Your task to perform on an android device: Add "lenovo thinkpad" to the cart on ebay.com Image 0: 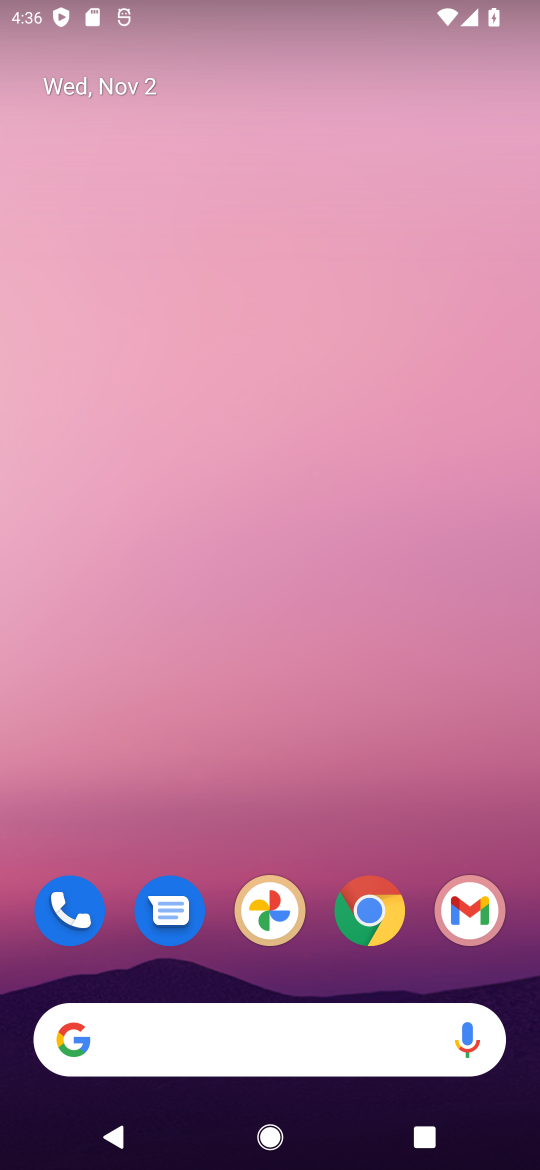
Step 0: click (368, 914)
Your task to perform on an android device: Add "lenovo thinkpad" to the cart on ebay.com Image 1: 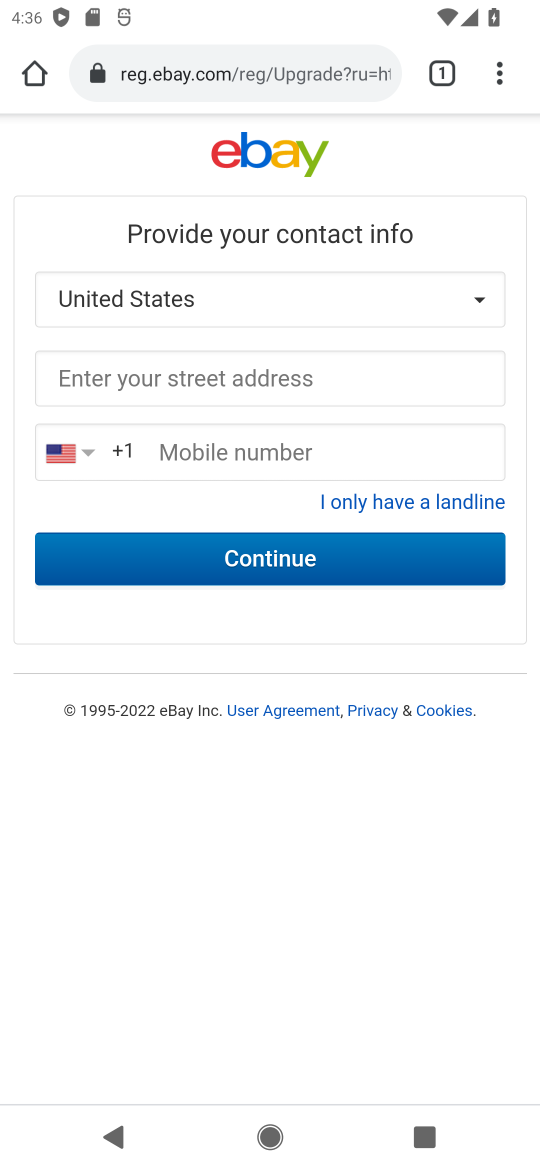
Step 1: click (349, 61)
Your task to perform on an android device: Add "lenovo thinkpad" to the cart on ebay.com Image 2: 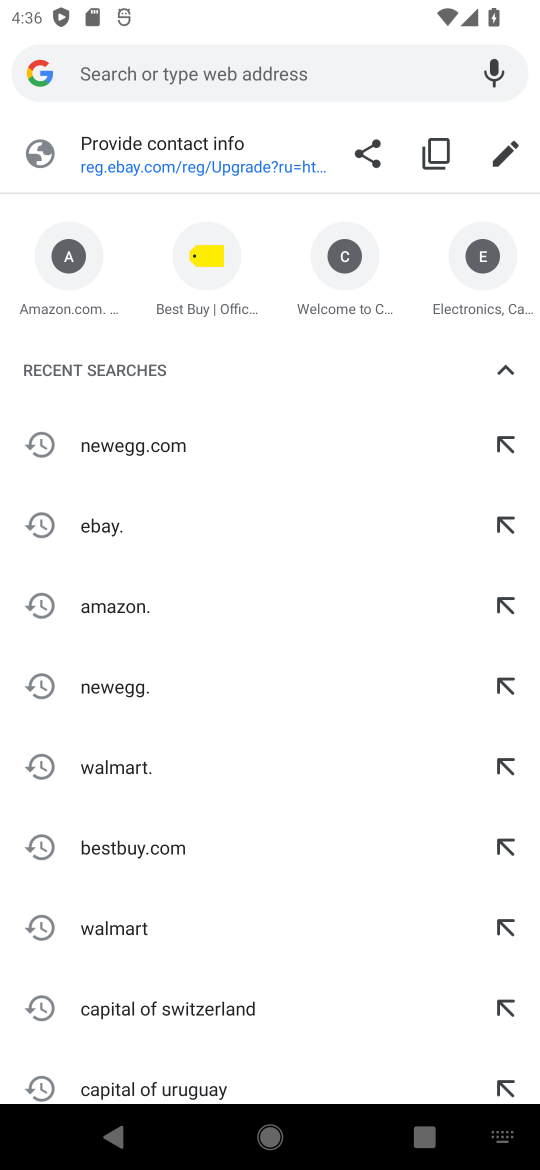
Step 2: type "ebay.com"
Your task to perform on an android device: Add "lenovo thinkpad" to the cart on ebay.com Image 3: 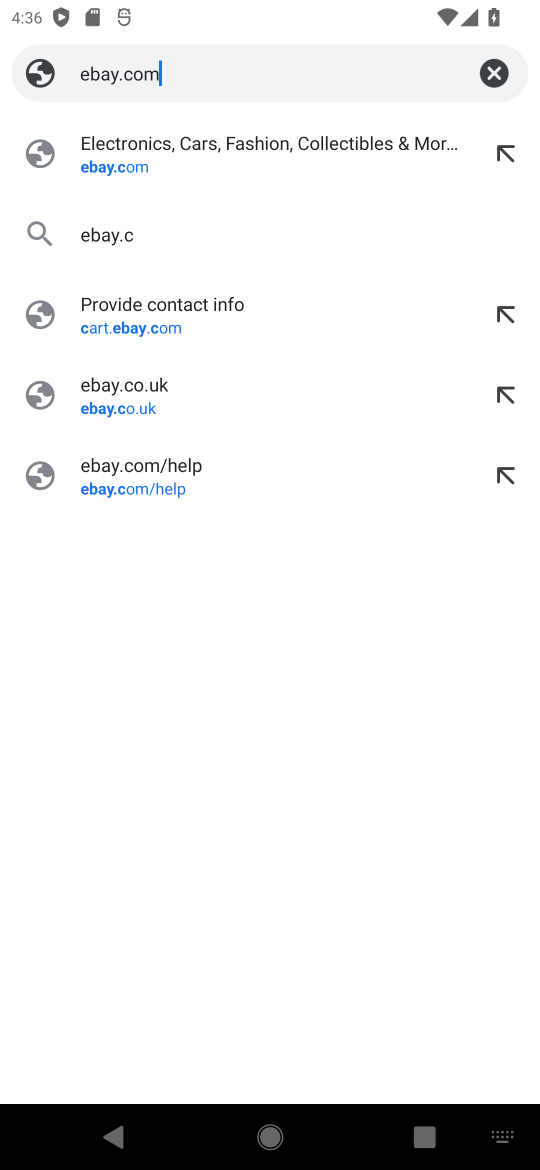
Step 3: type ""
Your task to perform on an android device: Add "lenovo thinkpad" to the cart on ebay.com Image 4: 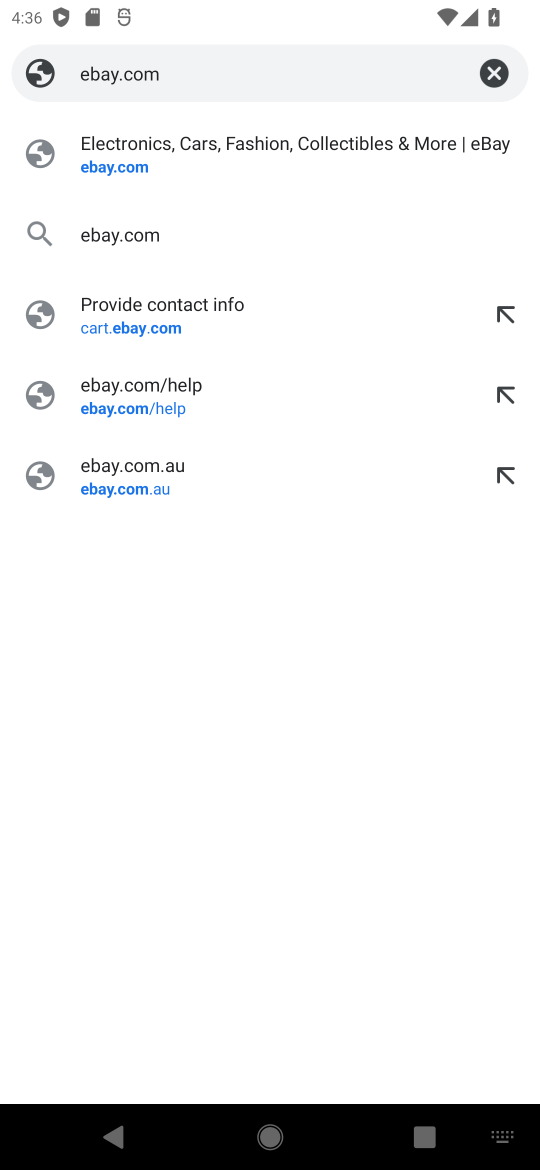
Step 4: click (227, 124)
Your task to perform on an android device: Add "lenovo thinkpad" to the cart on ebay.com Image 5: 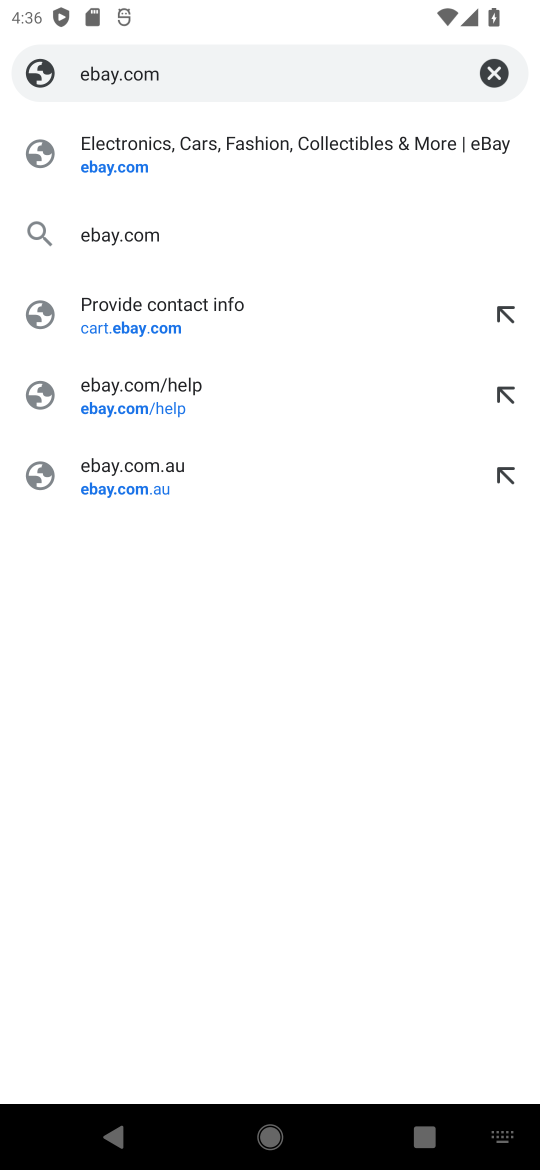
Step 5: click (222, 137)
Your task to perform on an android device: Add "lenovo thinkpad" to the cart on ebay.com Image 6: 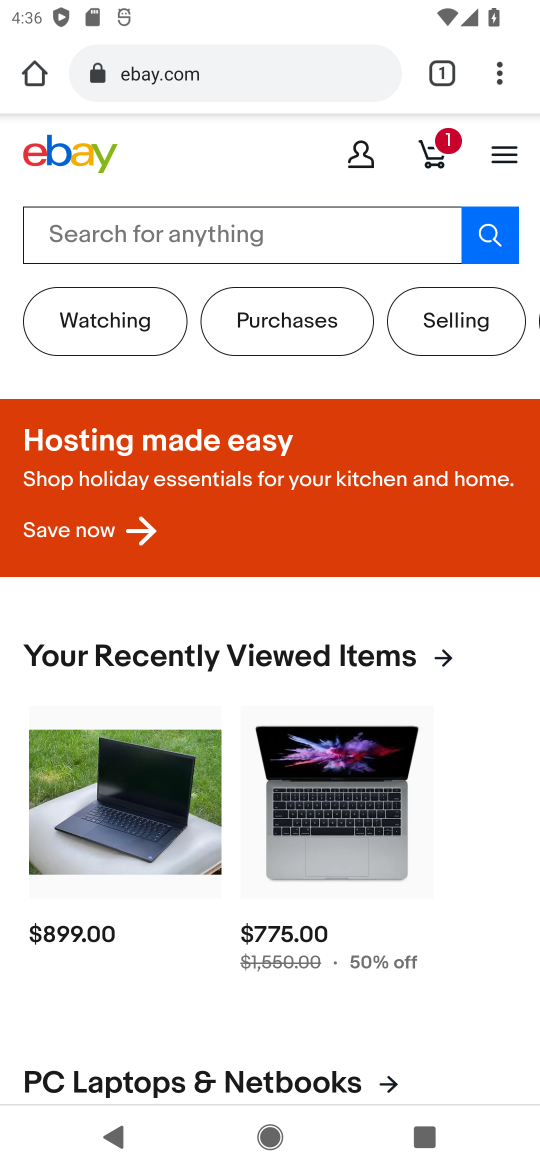
Step 6: click (190, 217)
Your task to perform on an android device: Add "lenovo thinkpad" to the cart on ebay.com Image 7: 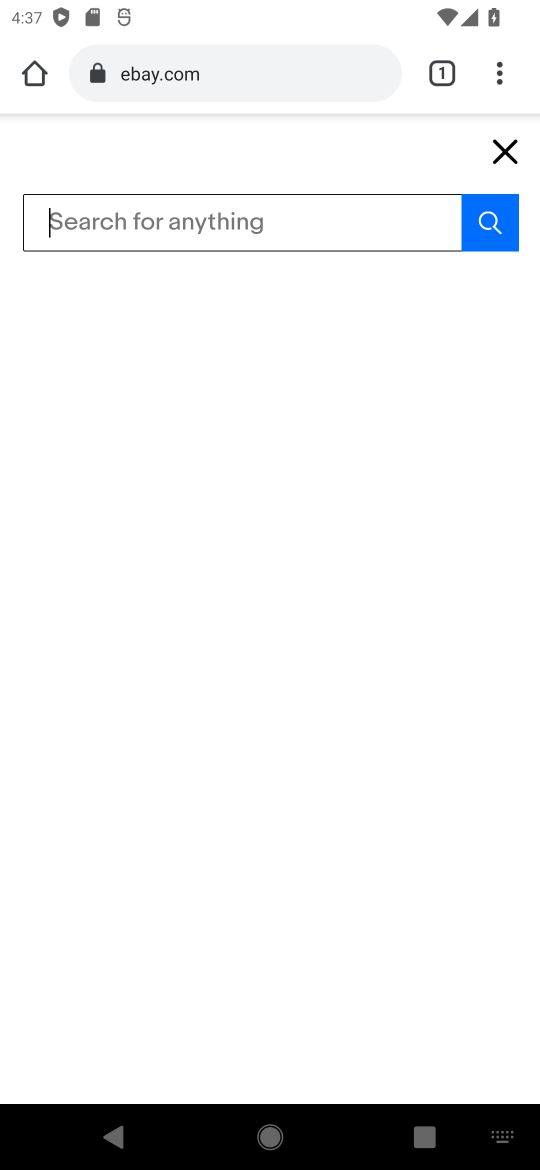
Step 7: type "lenovo thinkpad"
Your task to perform on an android device: Add "lenovo thinkpad" to the cart on ebay.com Image 8: 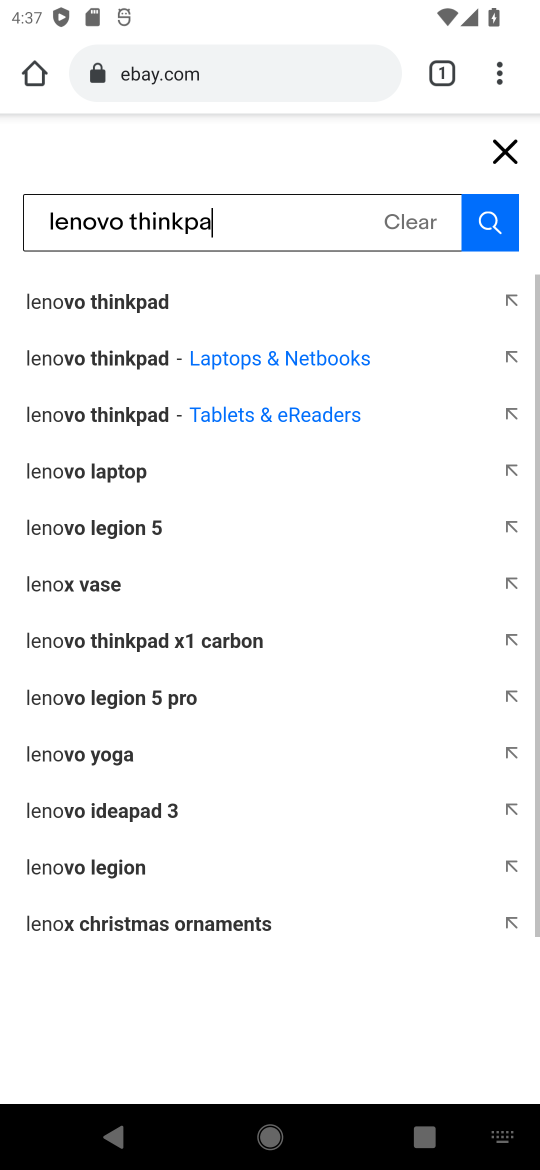
Step 8: type ""
Your task to perform on an android device: Add "lenovo thinkpad" to the cart on ebay.com Image 9: 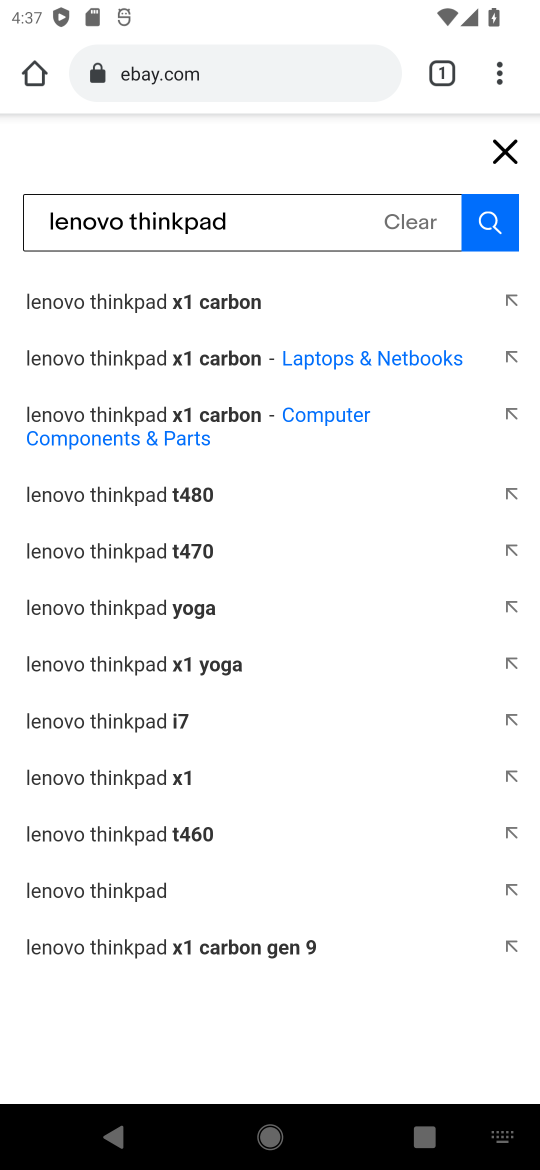
Step 9: click (473, 212)
Your task to perform on an android device: Add "lenovo thinkpad" to the cart on ebay.com Image 10: 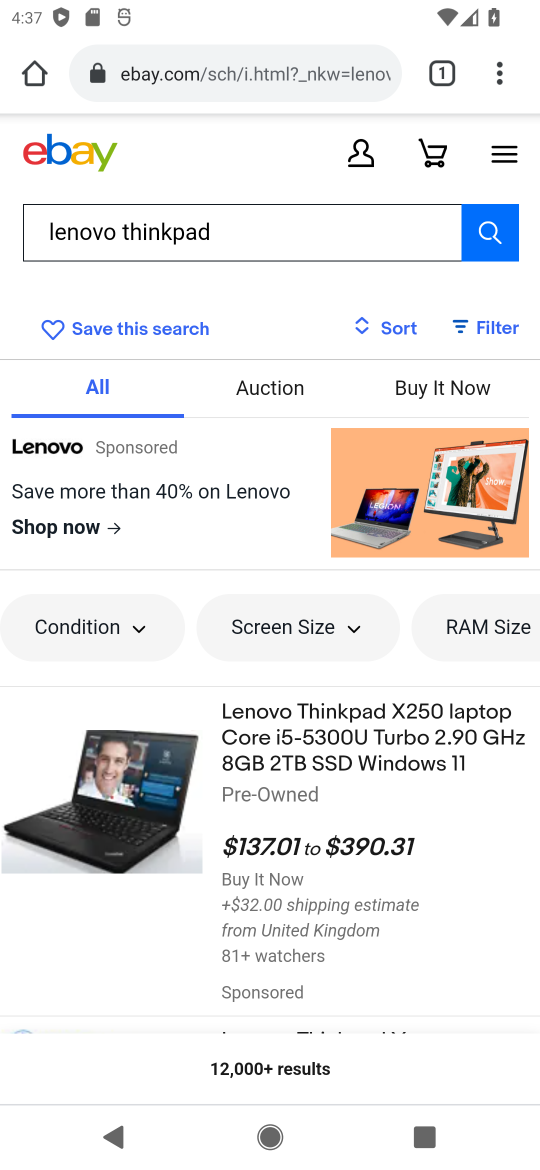
Step 10: click (348, 738)
Your task to perform on an android device: Add "lenovo thinkpad" to the cart on ebay.com Image 11: 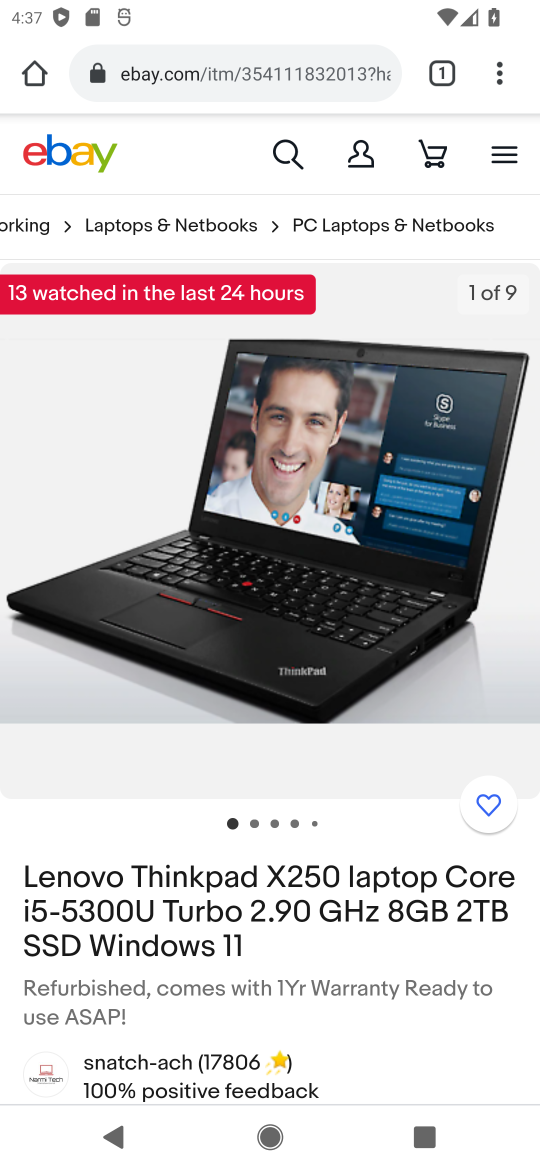
Step 11: drag from (381, 760) to (369, 357)
Your task to perform on an android device: Add "lenovo thinkpad" to the cart on ebay.com Image 12: 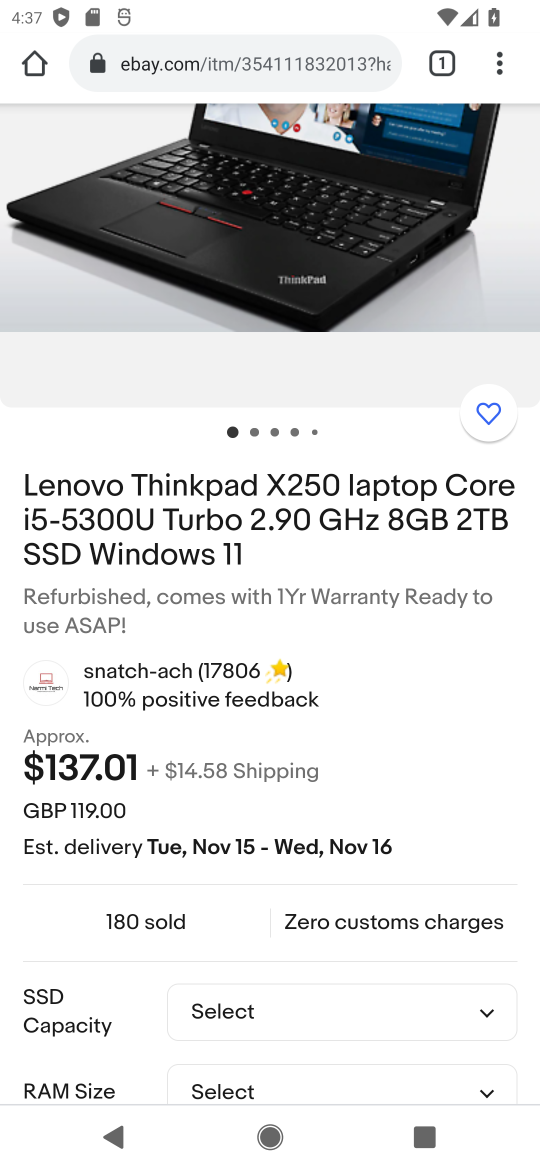
Step 12: drag from (331, 804) to (319, 404)
Your task to perform on an android device: Add "lenovo thinkpad" to the cart on ebay.com Image 13: 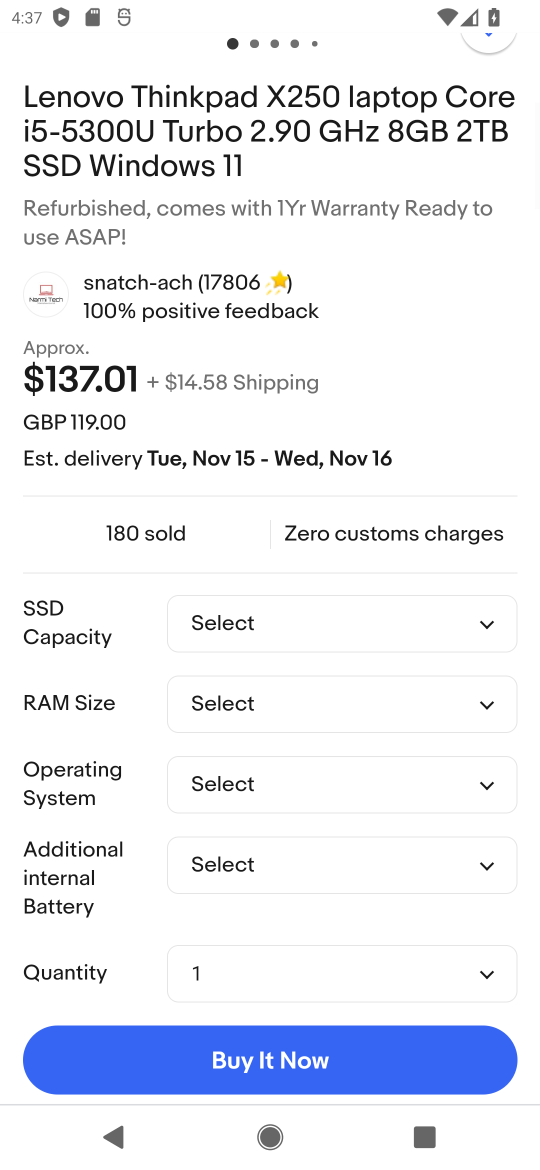
Step 13: click (266, 604)
Your task to perform on an android device: Add "lenovo thinkpad" to the cart on ebay.com Image 14: 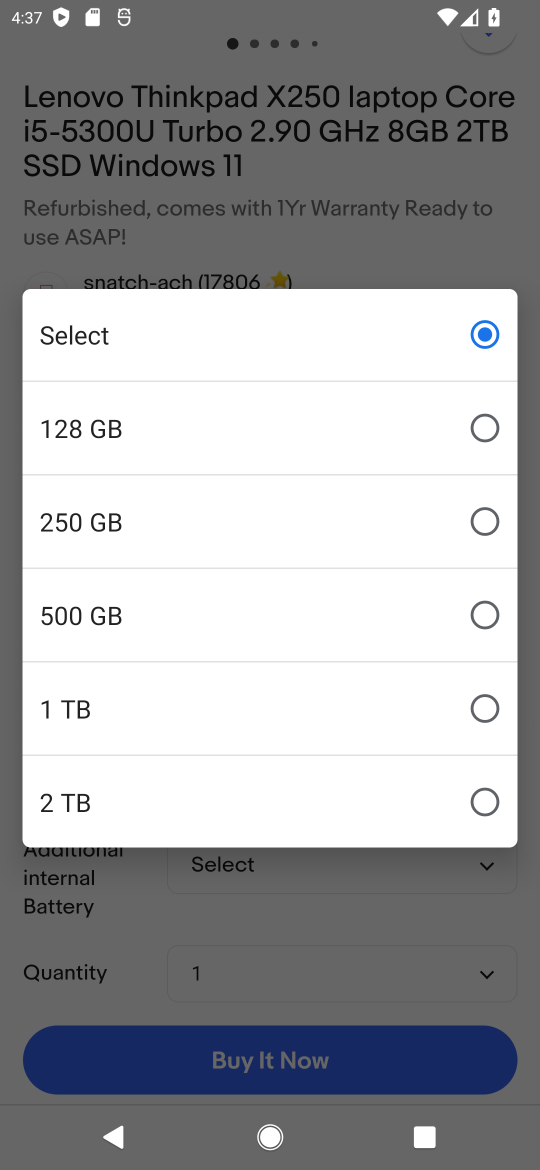
Step 14: click (215, 607)
Your task to perform on an android device: Add "lenovo thinkpad" to the cart on ebay.com Image 15: 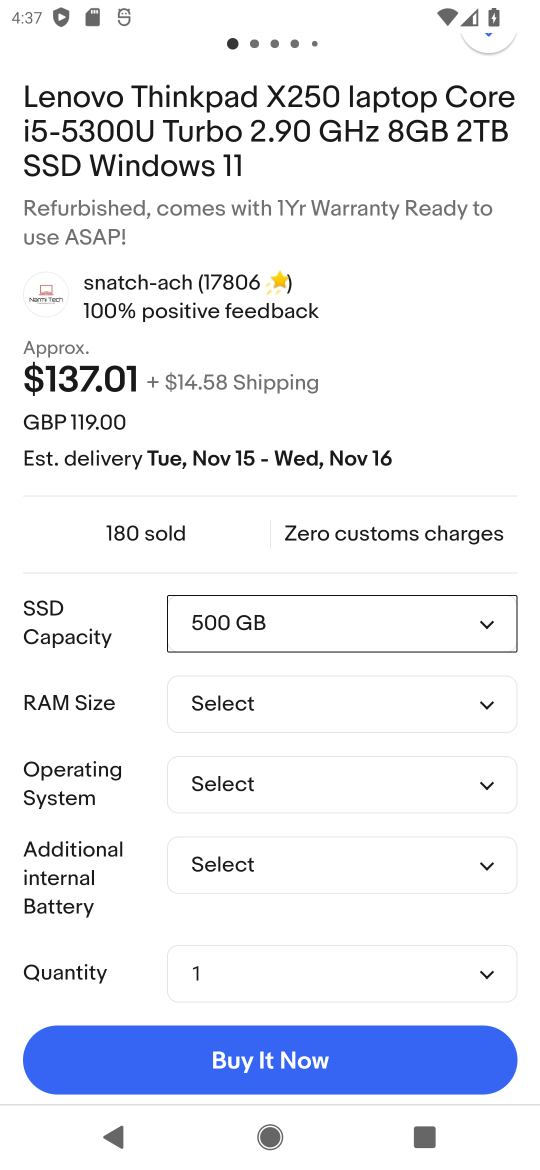
Step 15: click (264, 695)
Your task to perform on an android device: Add "lenovo thinkpad" to the cart on ebay.com Image 16: 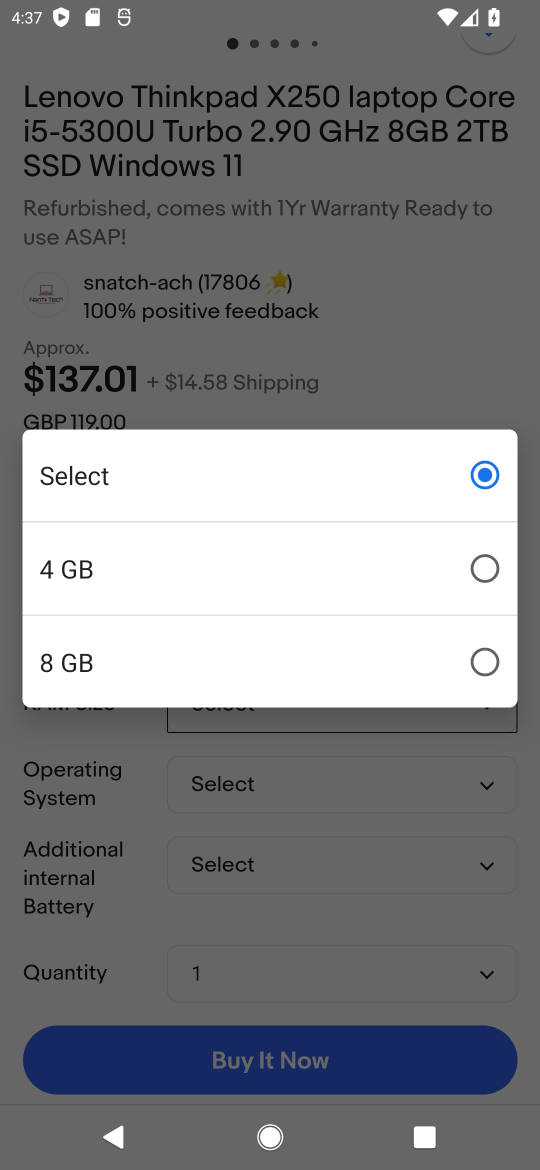
Step 16: click (271, 666)
Your task to perform on an android device: Add "lenovo thinkpad" to the cart on ebay.com Image 17: 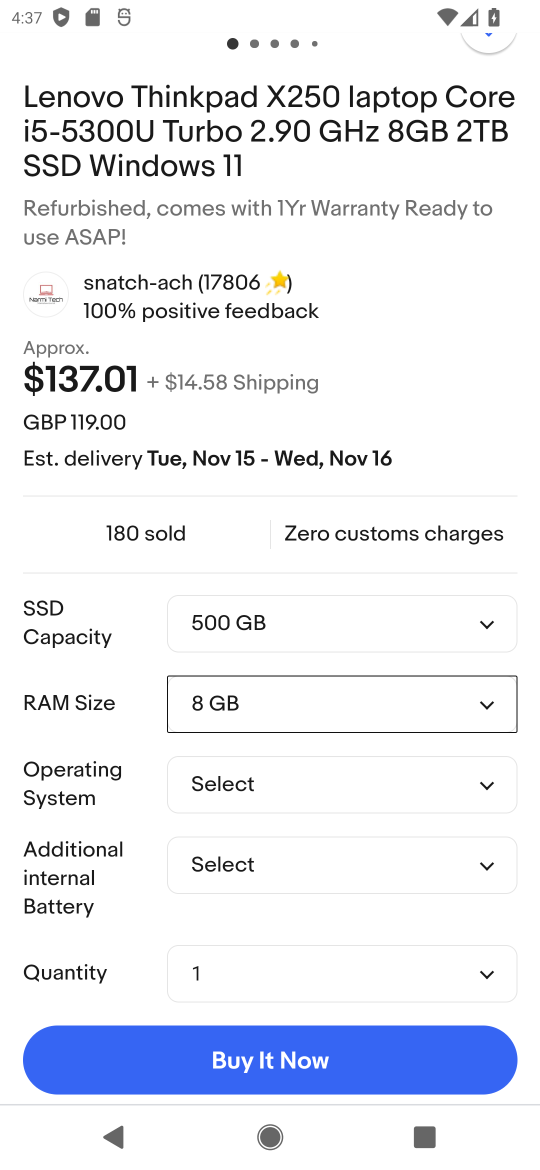
Step 17: click (274, 791)
Your task to perform on an android device: Add "lenovo thinkpad" to the cart on ebay.com Image 18: 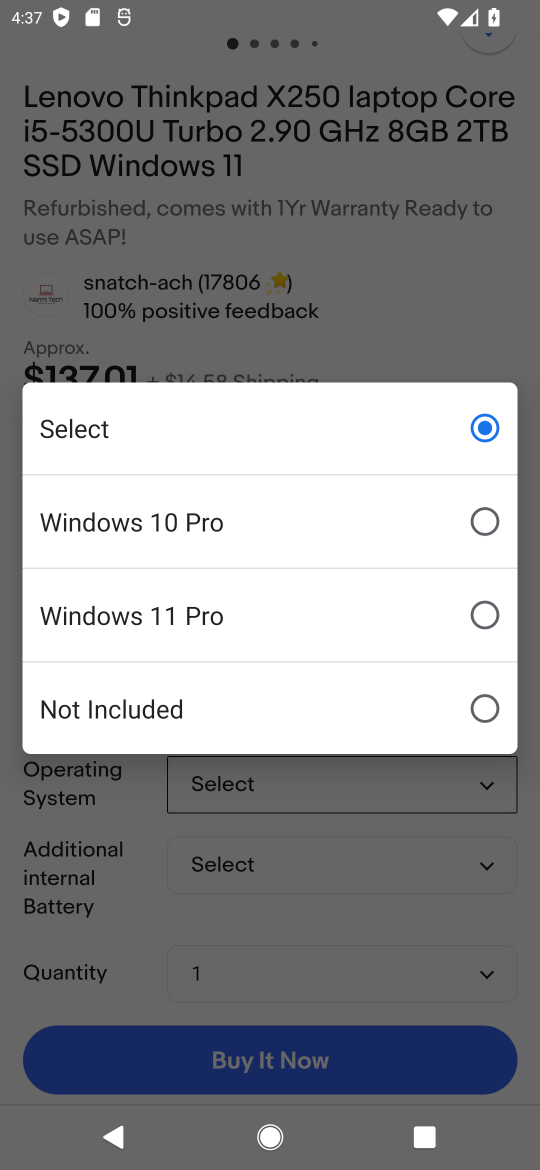
Step 18: click (289, 603)
Your task to perform on an android device: Add "lenovo thinkpad" to the cart on ebay.com Image 19: 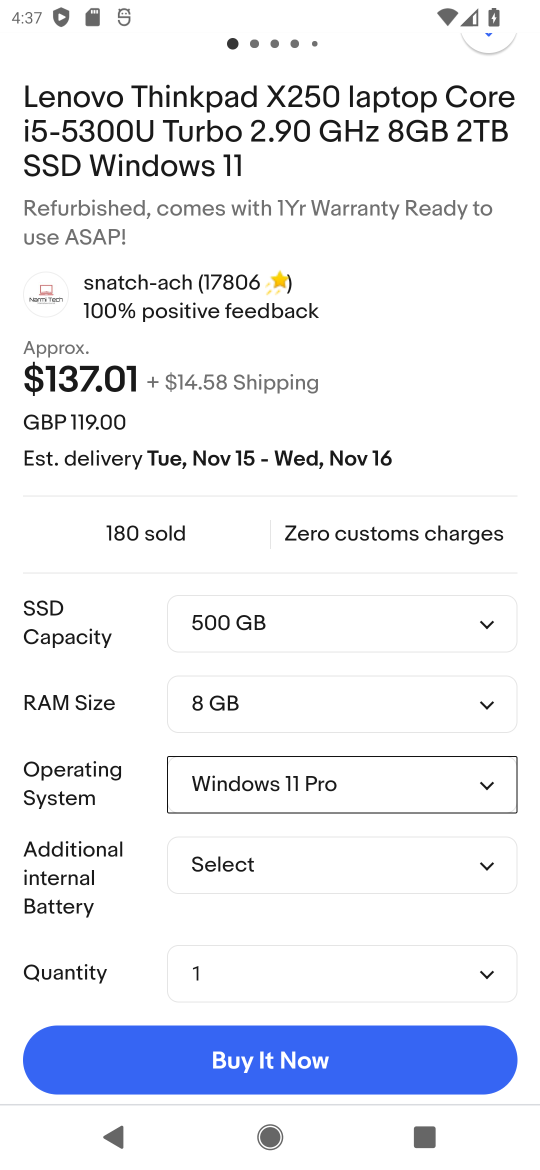
Step 19: click (252, 872)
Your task to perform on an android device: Add "lenovo thinkpad" to the cart on ebay.com Image 20: 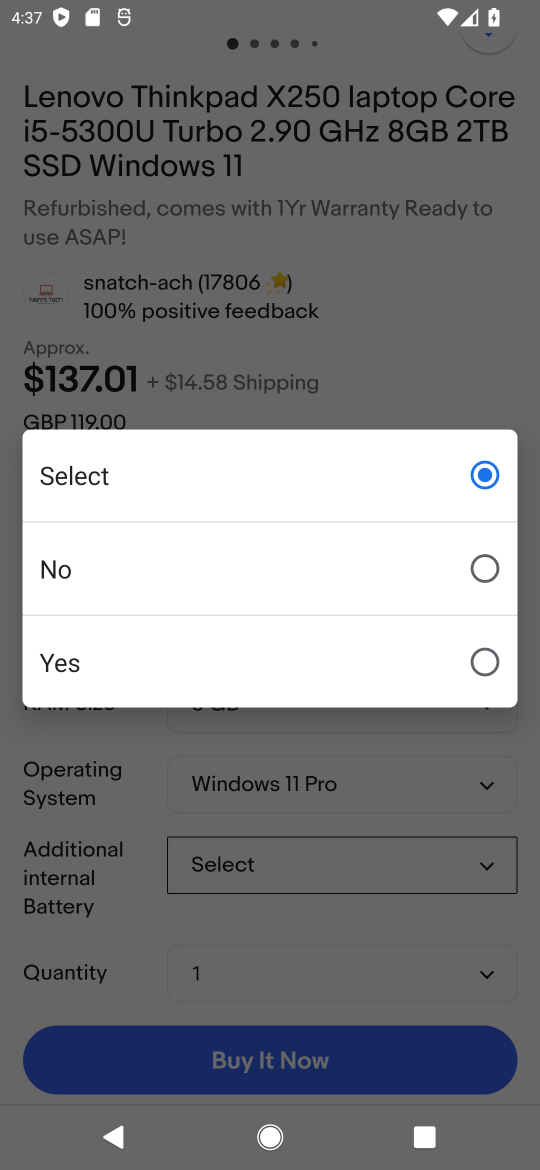
Step 20: click (265, 643)
Your task to perform on an android device: Add "lenovo thinkpad" to the cart on ebay.com Image 21: 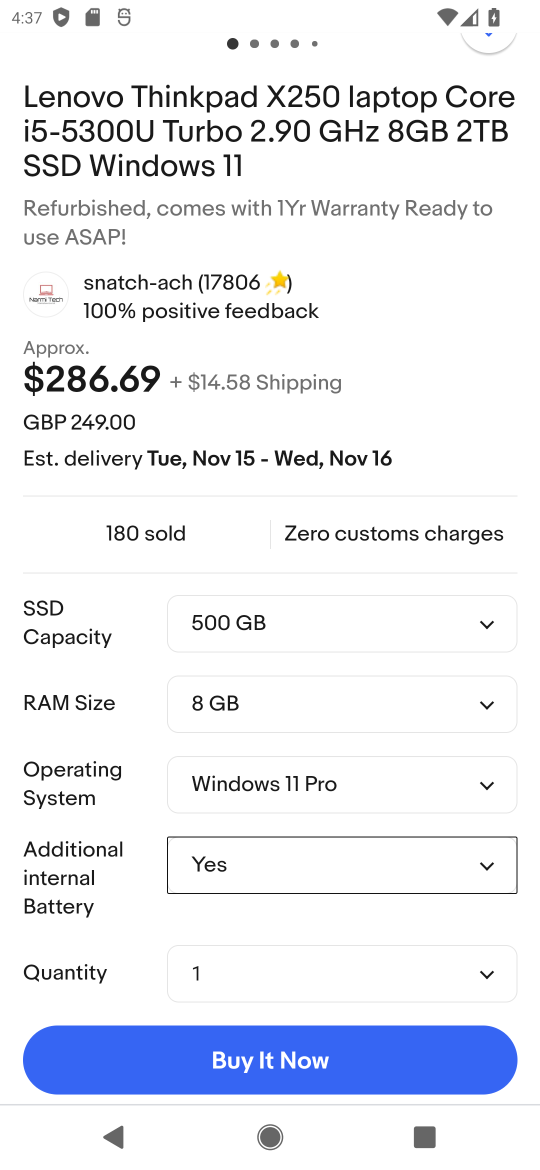
Step 21: drag from (317, 819) to (365, 549)
Your task to perform on an android device: Add "lenovo thinkpad" to the cart on ebay.com Image 22: 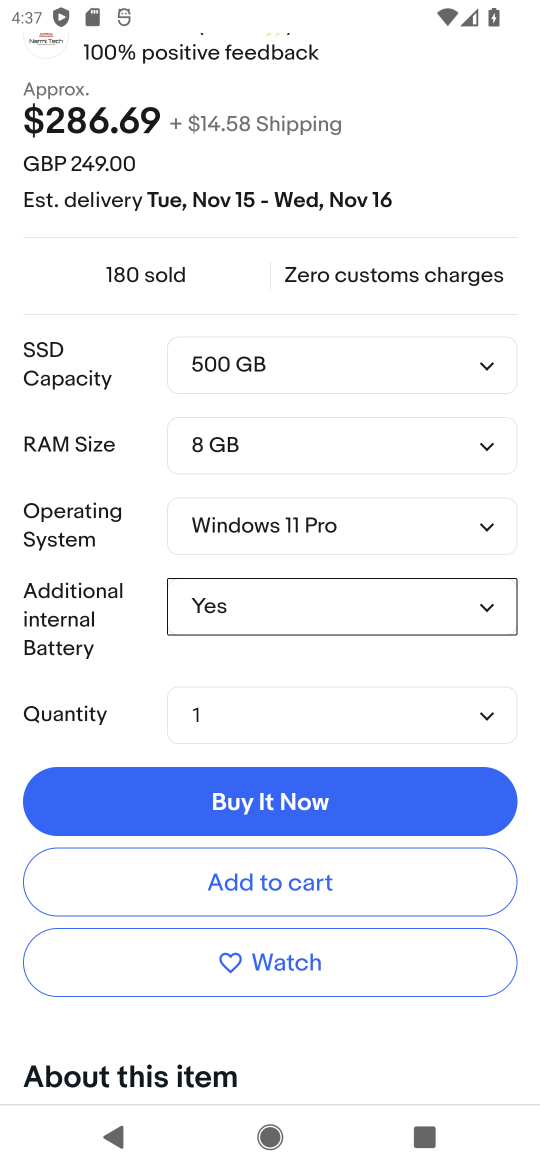
Step 22: click (267, 893)
Your task to perform on an android device: Add "lenovo thinkpad" to the cart on ebay.com Image 23: 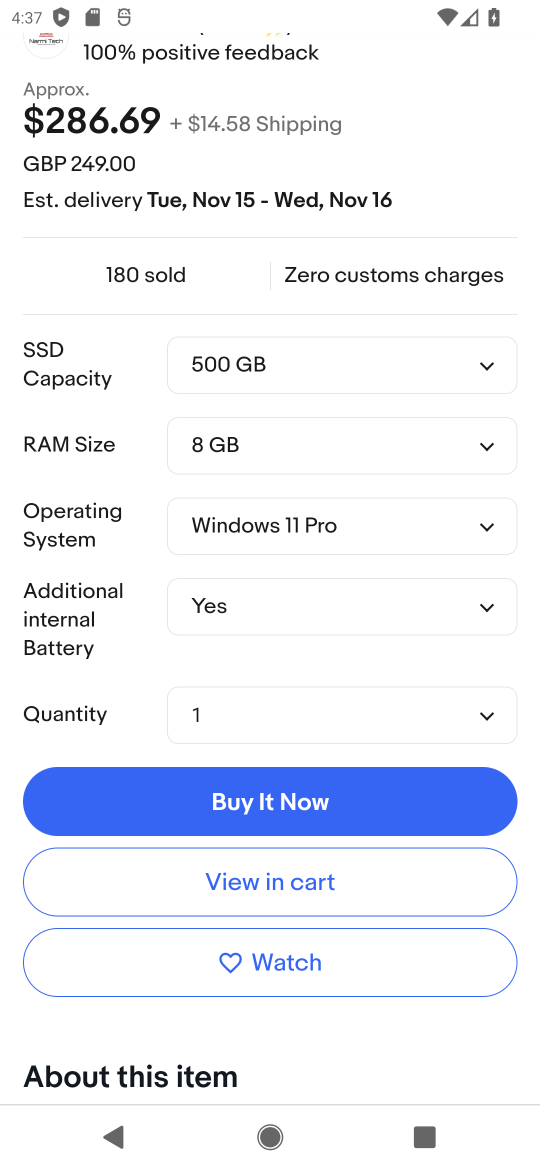
Step 23: click (267, 893)
Your task to perform on an android device: Add "lenovo thinkpad" to the cart on ebay.com Image 24: 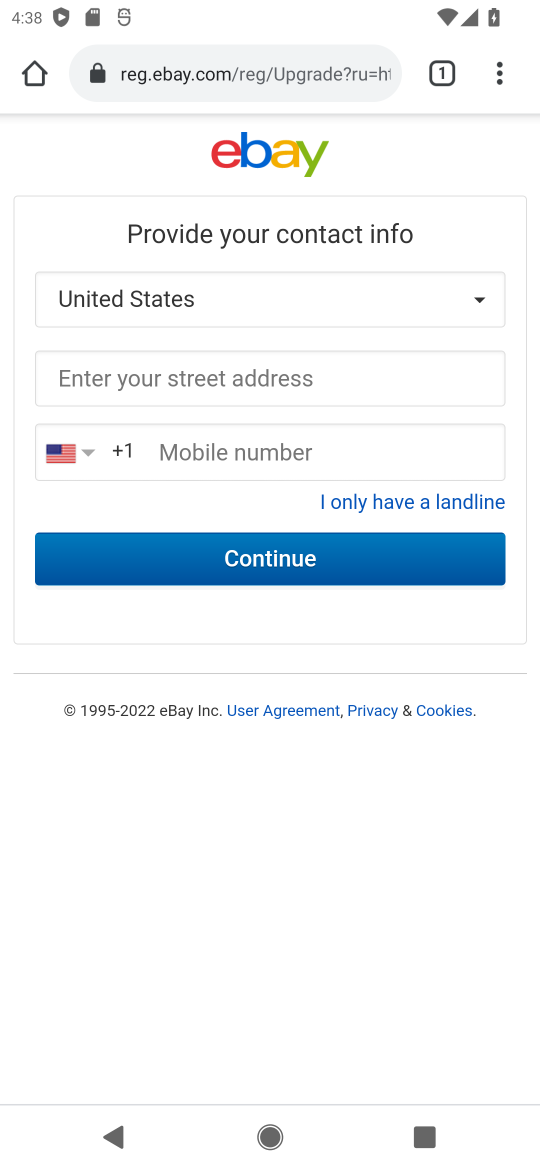
Step 24: task complete